Your task to perform on an android device: empty trash in google photos Image 0: 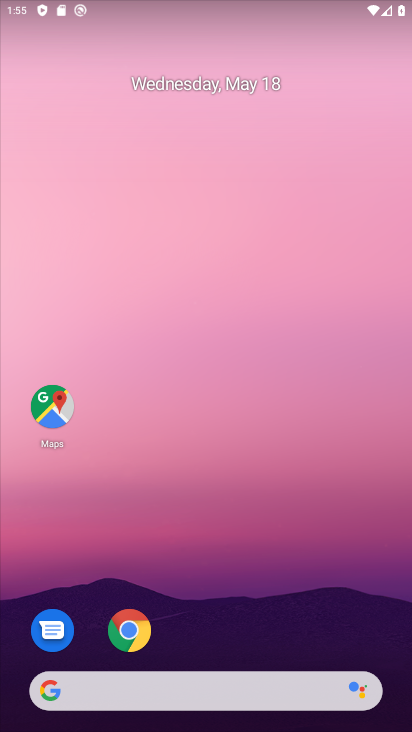
Step 0: drag from (204, 626) to (217, 239)
Your task to perform on an android device: empty trash in google photos Image 1: 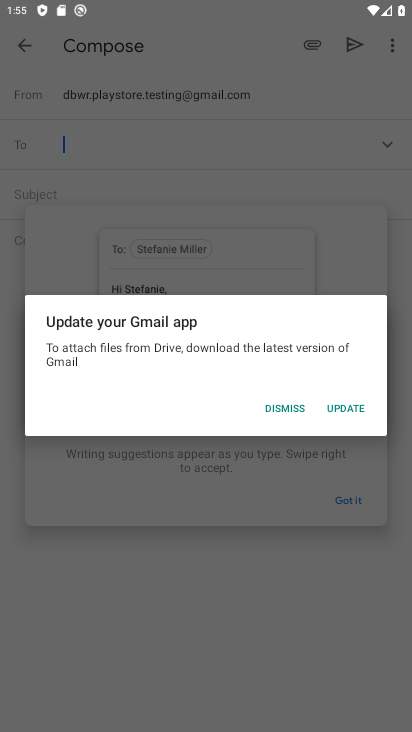
Step 1: press home button
Your task to perform on an android device: empty trash in google photos Image 2: 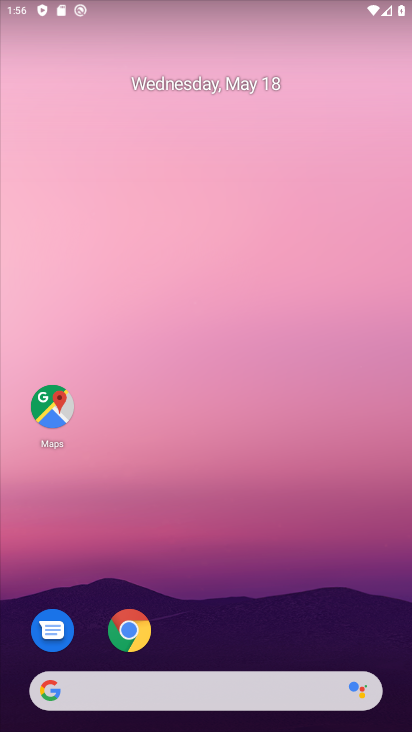
Step 2: drag from (211, 630) to (205, 192)
Your task to perform on an android device: empty trash in google photos Image 3: 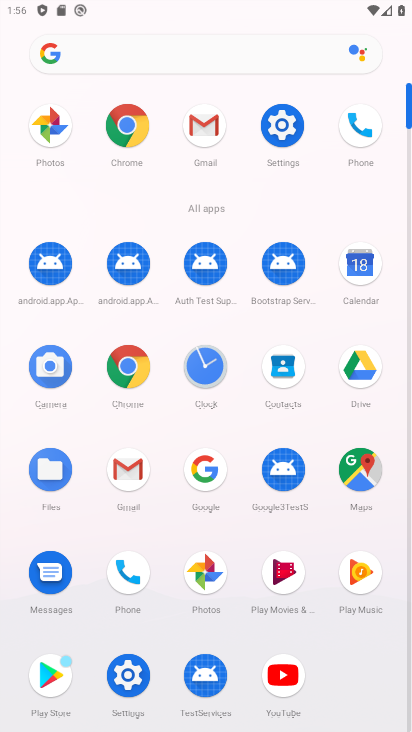
Step 3: click (204, 567)
Your task to perform on an android device: empty trash in google photos Image 4: 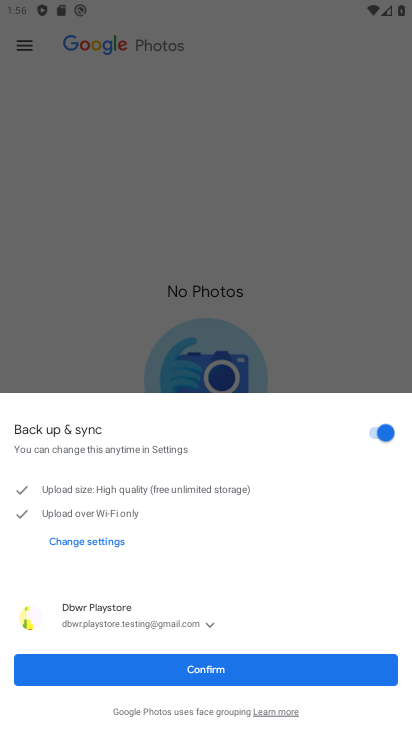
Step 4: click (121, 673)
Your task to perform on an android device: empty trash in google photos Image 5: 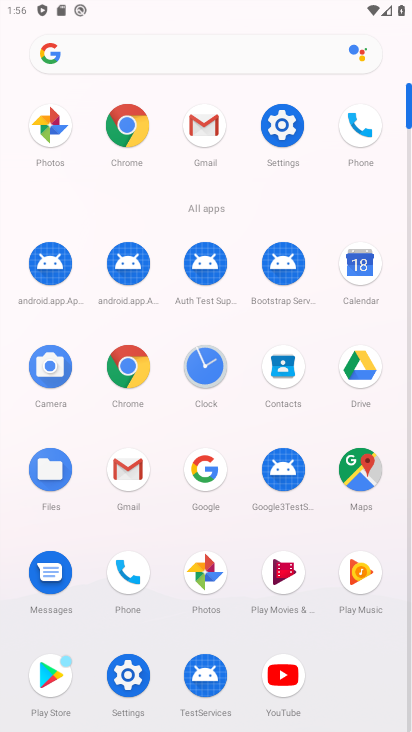
Step 5: click (24, 38)
Your task to perform on an android device: empty trash in google photos Image 6: 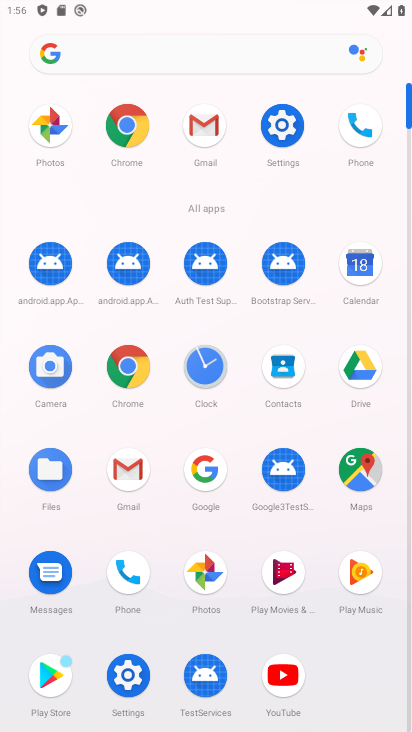
Step 6: click (41, 115)
Your task to perform on an android device: empty trash in google photos Image 7: 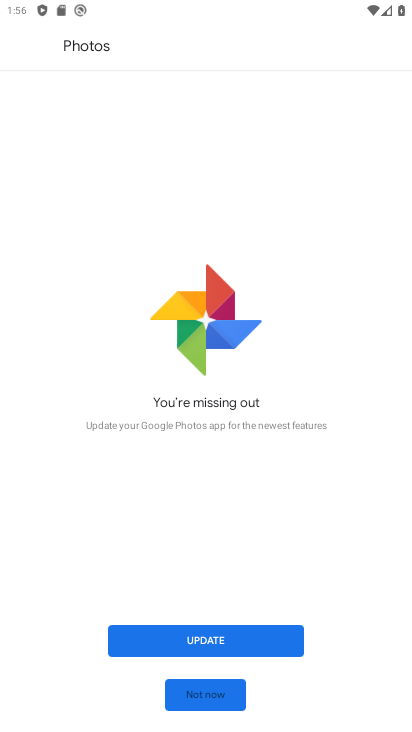
Step 7: click (218, 691)
Your task to perform on an android device: empty trash in google photos Image 8: 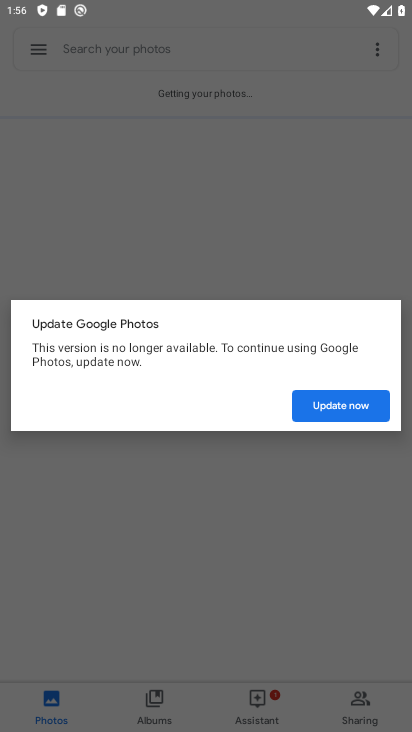
Step 8: click (355, 403)
Your task to perform on an android device: empty trash in google photos Image 9: 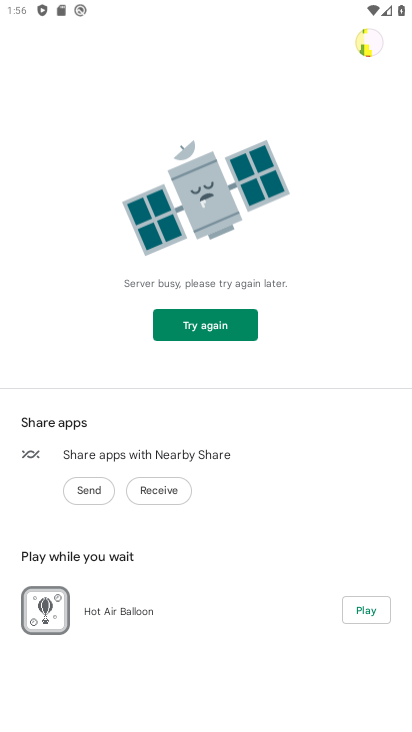
Step 9: press back button
Your task to perform on an android device: empty trash in google photos Image 10: 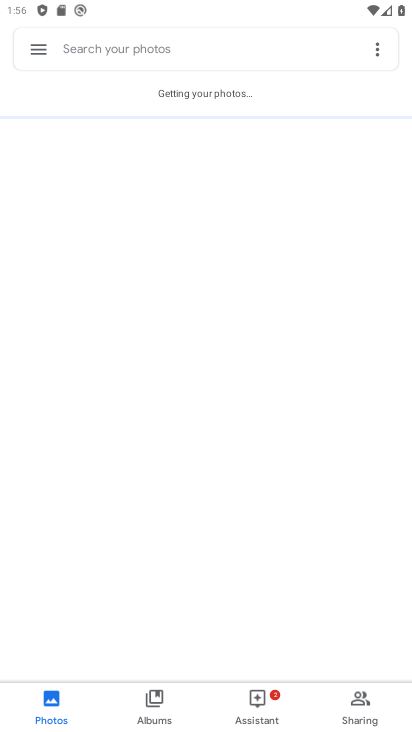
Step 10: click (47, 54)
Your task to perform on an android device: empty trash in google photos Image 11: 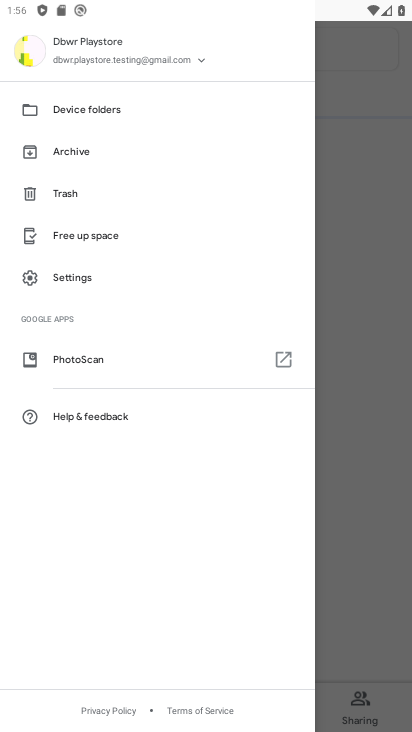
Step 11: click (75, 185)
Your task to perform on an android device: empty trash in google photos Image 12: 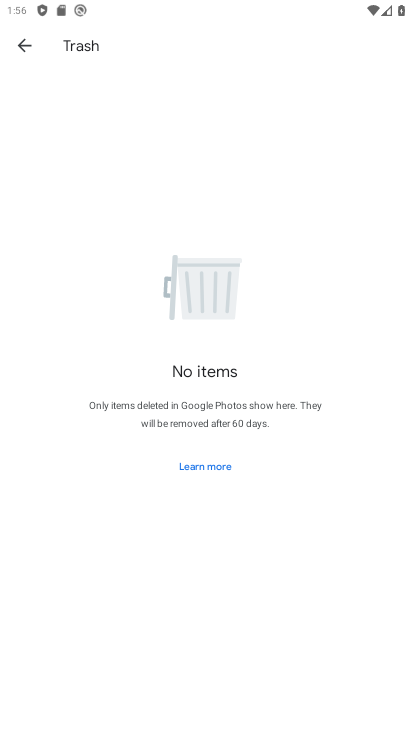
Step 12: task complete